Your task to perform on an android device: Open location settings Image 0: 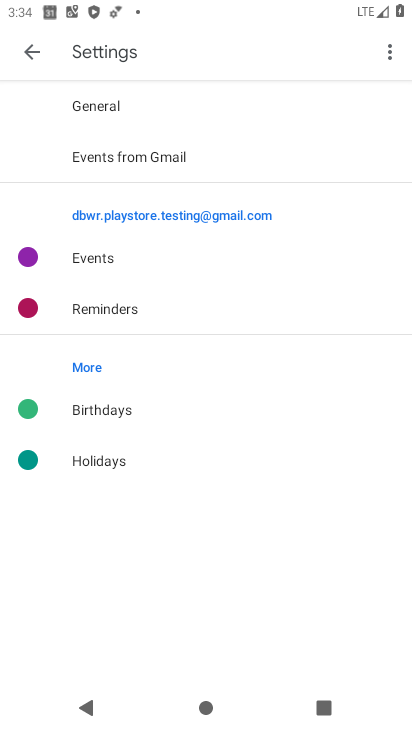
Step 0: press back button
Your task to perform on an android device: Open location settings Image 1: 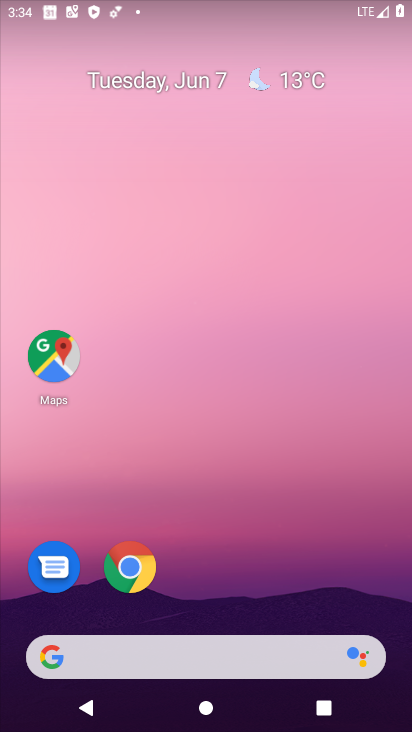
Step 1: drag from (237, 565) to (298, 0)
Your task to perform on an android device: Open location settings Image 2: 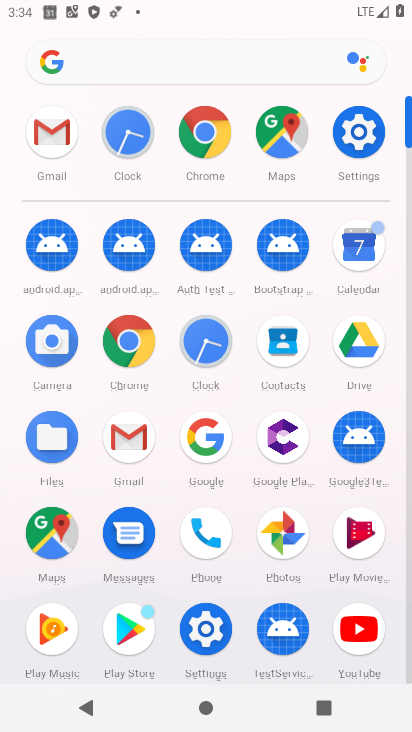
Step 2: click (362, 140)
Your task to perform on an android device: Open location settings Image 3: 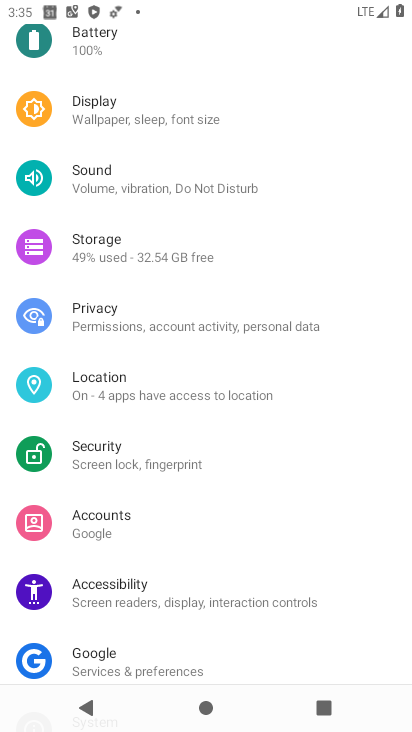
Step 3: click (87, 377)
Your task to perform on an android device: Open location settings Image 4: 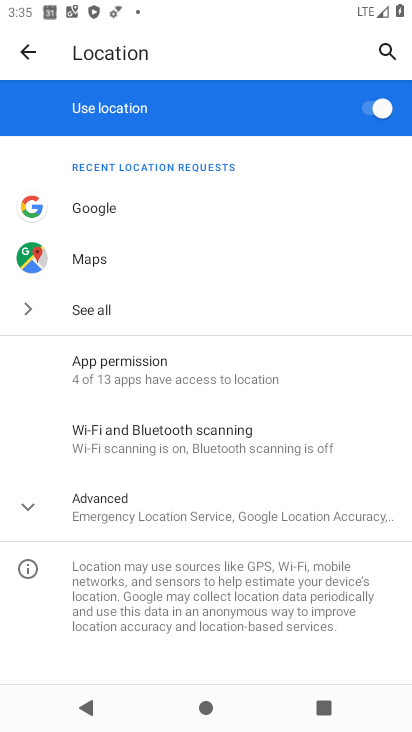
Step 4: task complete